Your task to perform on an android device: open the mobile data screen to see how much data has been used Image 0: 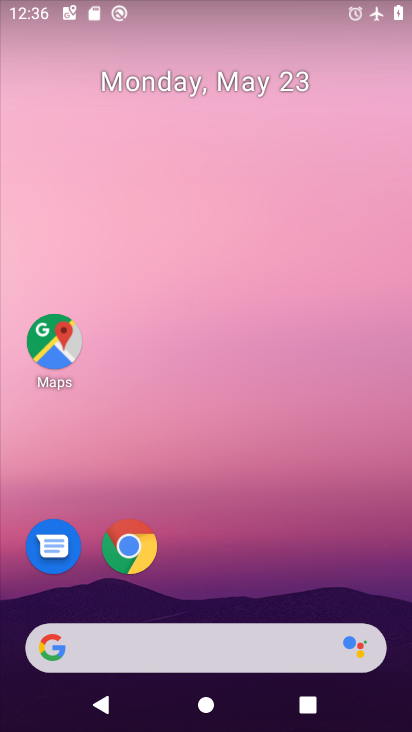
Step 0: drag from (209, 605) to (206, 152)
Your task to perform on an android device: open the mobile data screen to see how much data has been used Image 1: 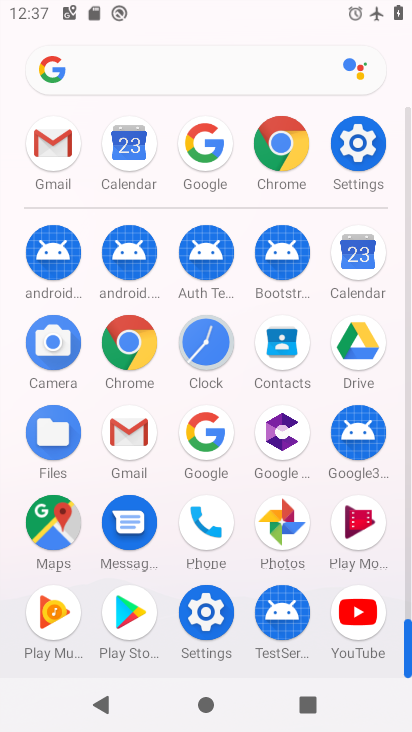
Step 1: task complete